Your task to perform on an android device: turn off smart reply in the gmail app Image 0: 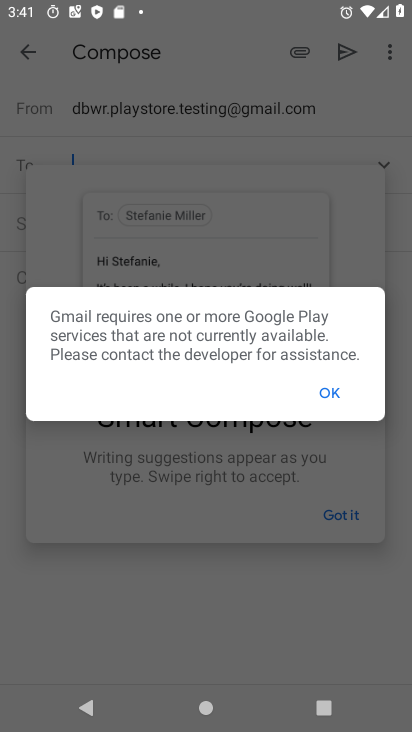
Step 0: press home button
Your task to perform on an android device: turn off smart reply in the gmail app Image 1: 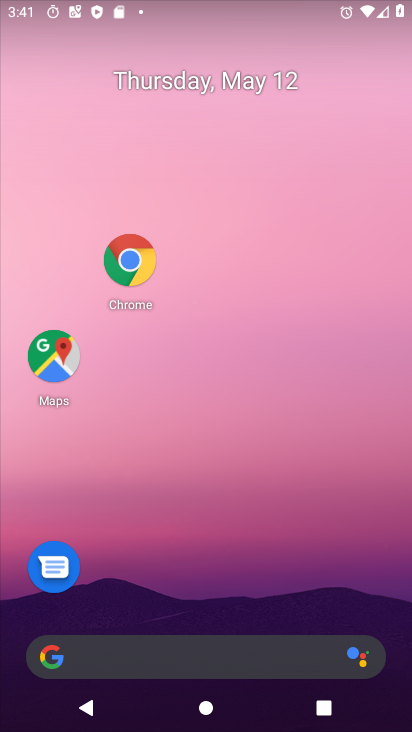
Step 1: drag from (226, 632) to (219, 263)
Your task to perform on an android device: turn off smart reply in the gmail app Image 2: 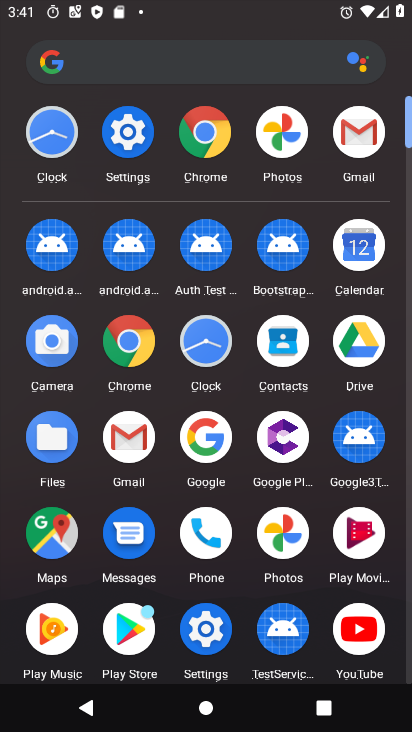
Step 2: click (368, 133)
Your task to perform on an android device: turn off smart reply in the gmail app Image 3: 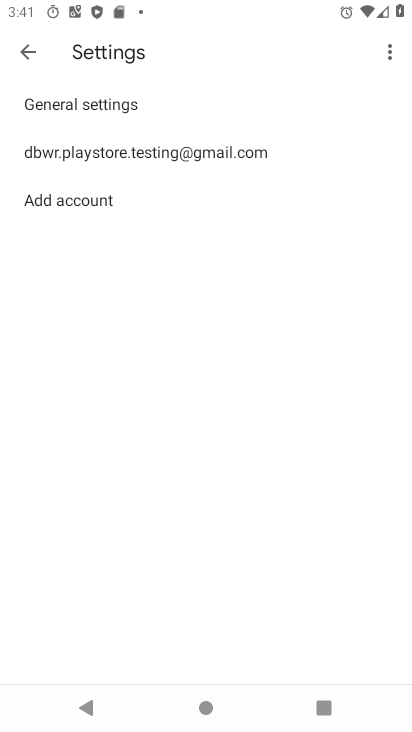
Step 3: click (110, 161)
Your task to perform on an android device: turn off smart reply in the gmail app Image 4: 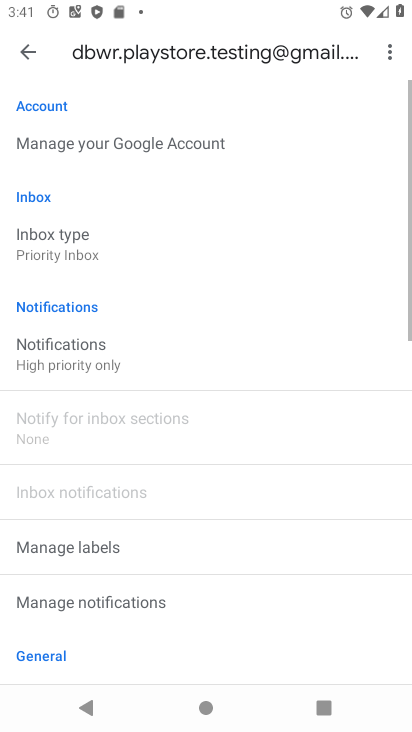
Step 4: drag from (202, 634) to (213, 296)
Your task to perform on an android device: turn off smart reply in the gmail app Image 5: 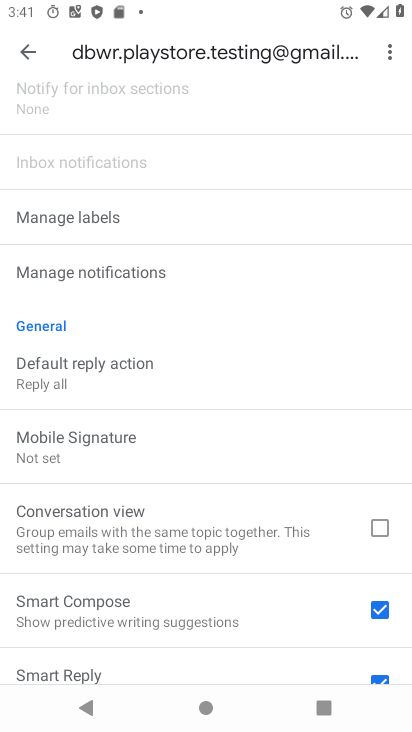
Step 5: drag from (189, 578) to (189, 307)
Your task to perform on an android device: turn off smart reply in the gmail app Image 6: 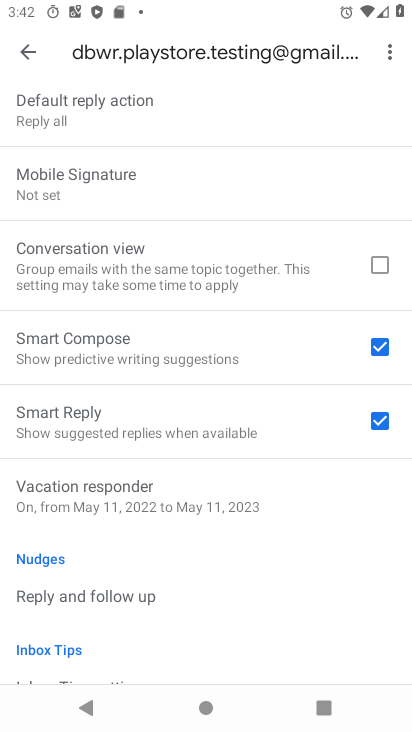
Step 6: click (380, 425)
Your task to perform on an android device: turn off smart reply in the gmail app Image 7: 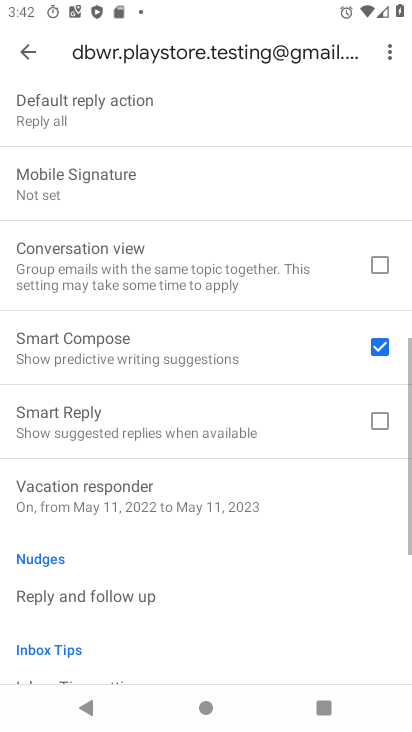
Step 7: task complete